Your task to perform on an android device: What's the weather like in Beijing? Image 0: 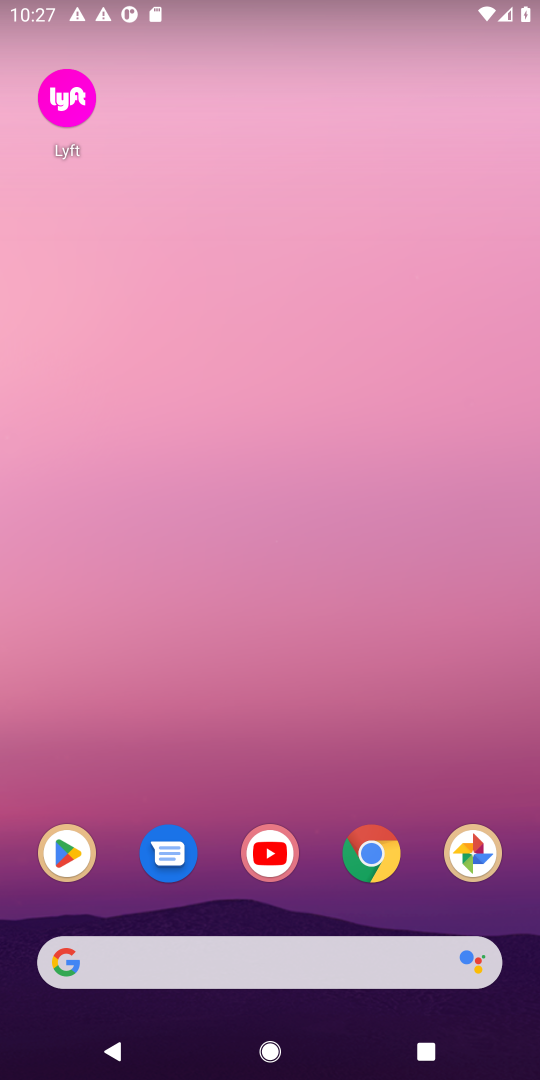
Step 0: click (167, 957)
Your task to perform on an android device: What's the weather like in Beijing? Image 1: 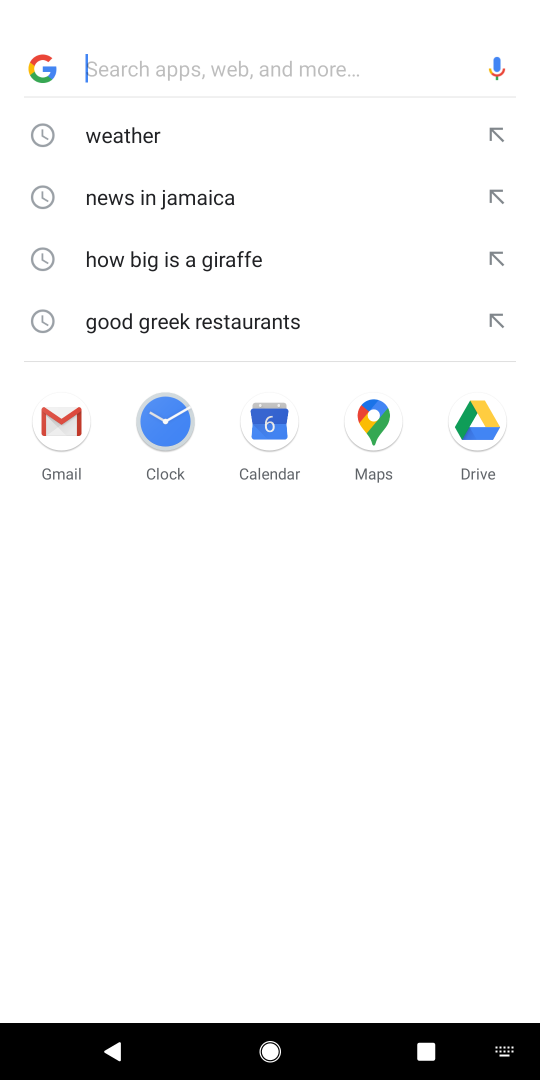
Step 1: type "weather in beijing"
Your task to perform on an android device: What's the weather like in Beijing? Image 2: 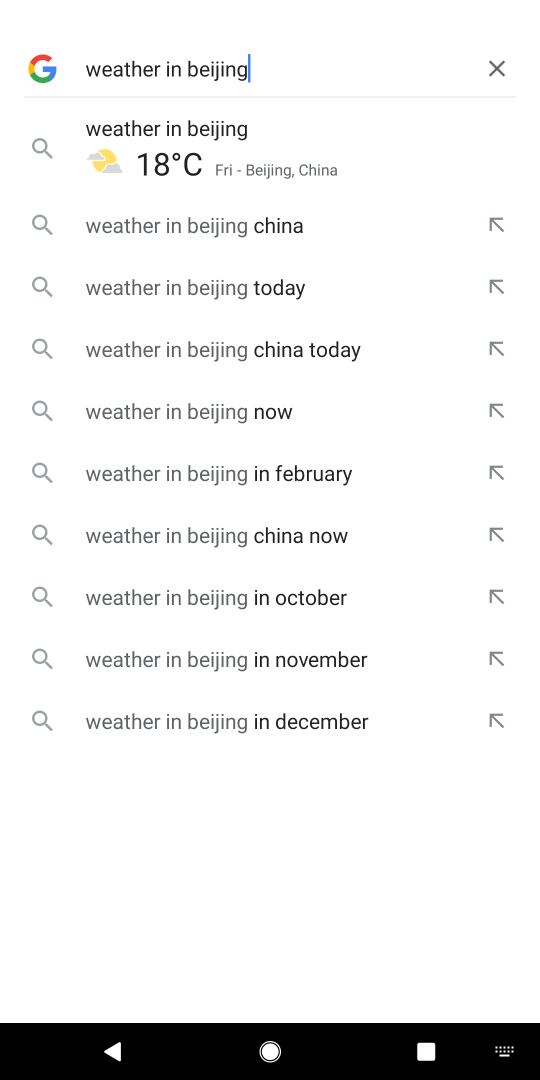
Step 2: click (201, 138)
Your task to perform on an android device: What's the weather like in Beijing? Image 3: 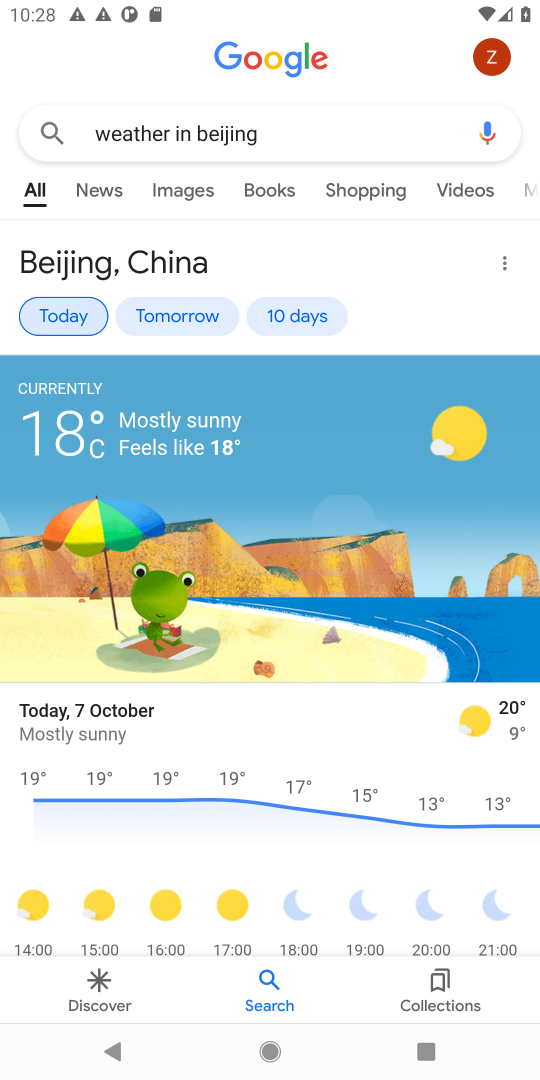
Step 3: drag from (304, 827) to (386, 195)
Your task to perform on an android device: What's the weather like in Beijing? Image 4: 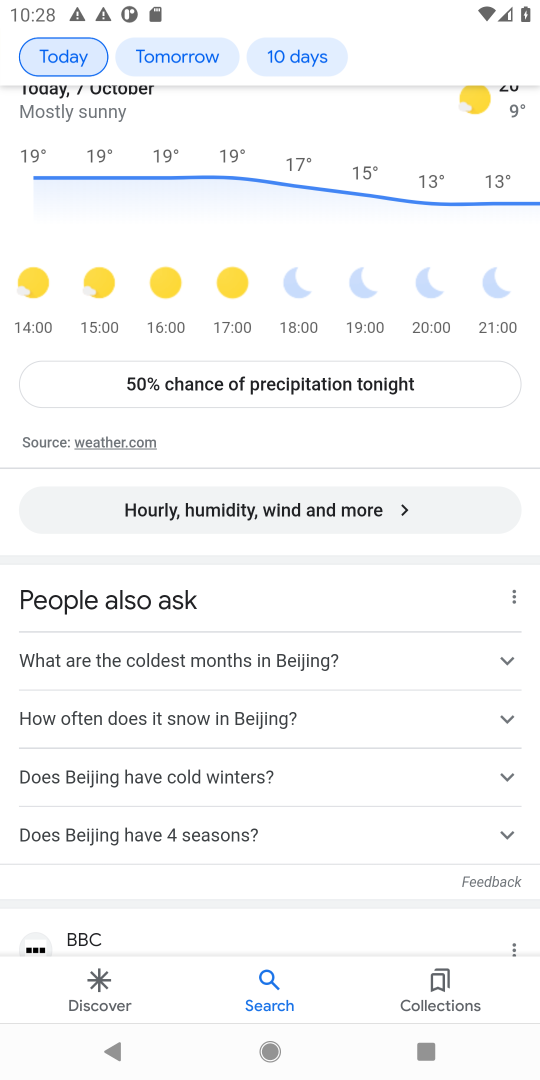
Step 4: drag from (372, 611) to (379, 205)
Your task to perform on an android device: What's the weather like in Beijing? Image 5: 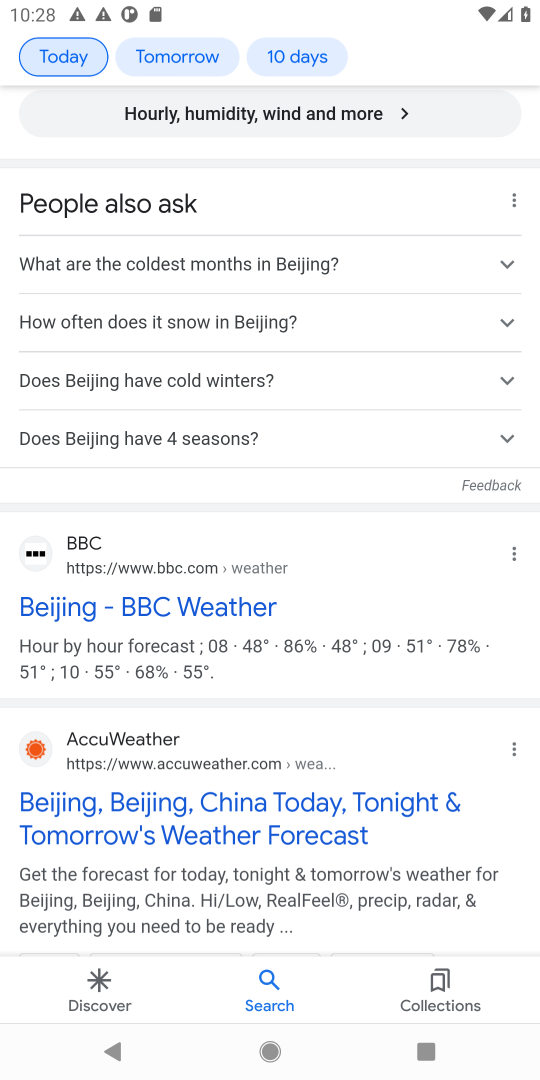
Step 5: drag from (362, 527) to (345, 248)
Your task to perform on an android device: What's the weather like in Beijing? Image 6: 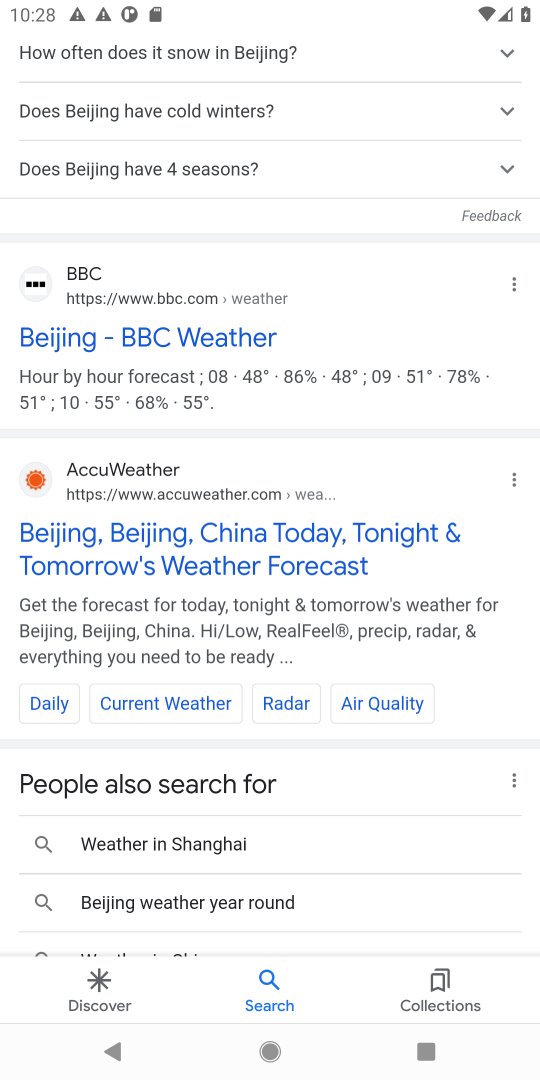
Step 6: drag from (300, 408) to (327, 199)
Your task to perform on an android device: What's the weather like in Beijing? Image 7: 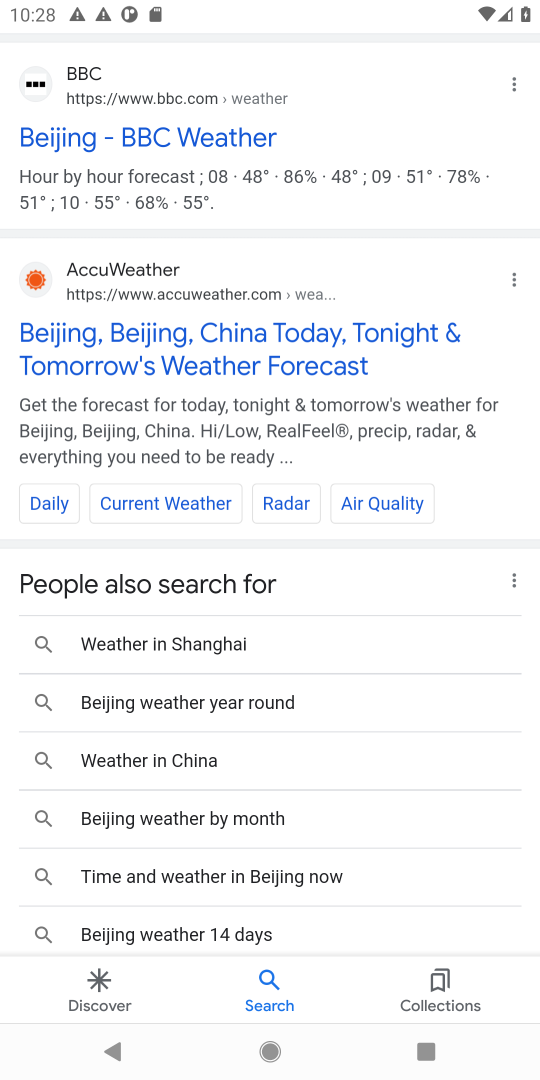
Step 7: drag from (326, 438) to (319, 211)
Your task to perform on an android device: What's the weather like in Beijing? Image 8: 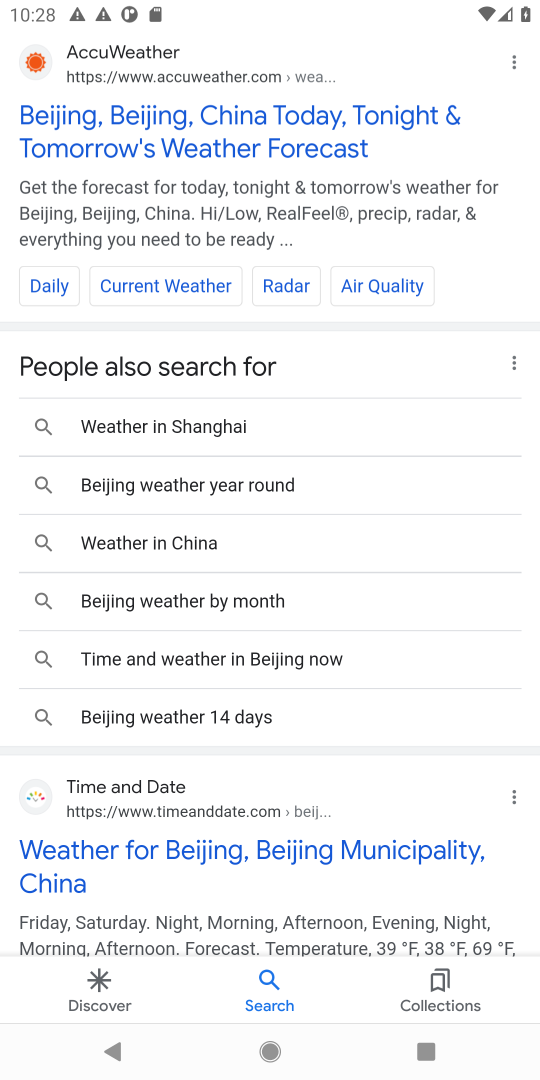
Step 8: drag from (353, 576) to (343, 195)
Your task to perform on an android device: What's the weather like in Beijing? Image 9: 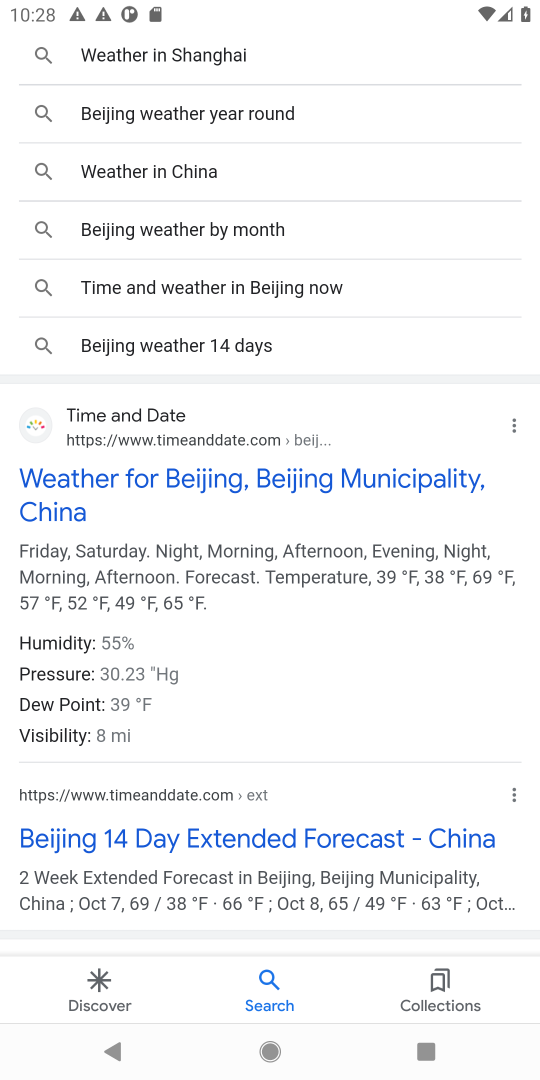
Step 9: drag from (379, 399) to (381, 182)
Your task to perform on an android device: What's the weather like in Beijing? Image 10: 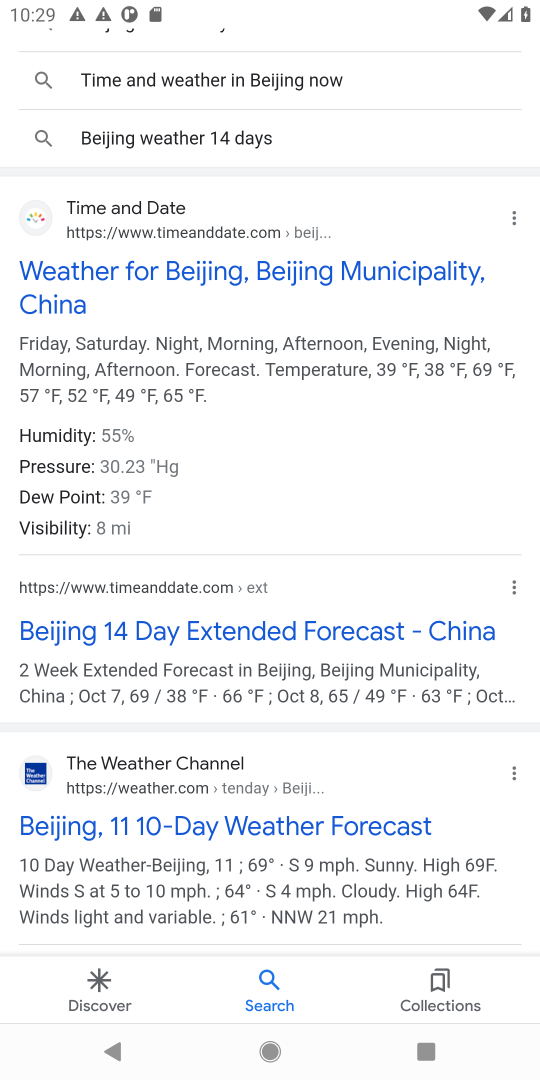
Step 10: drag from (332, 194) to (349, 136)
Your task to perform on an android device: What's the weather like in Beijing? Image 11: 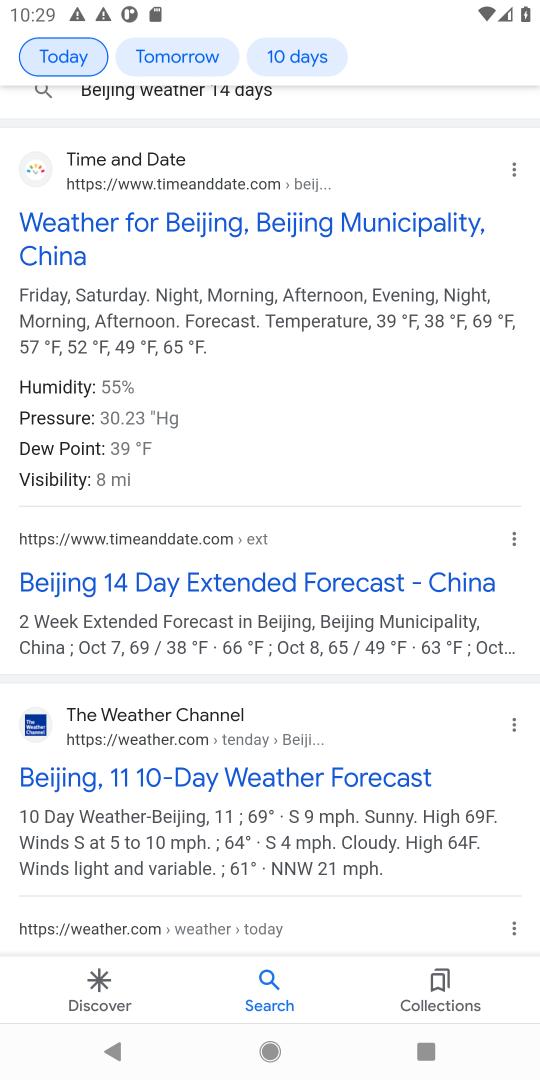
Step 11: drag from (341, 205) to (316, 921)
Your task to perform on an android device: What's the weather like in Beijing? Image 12: 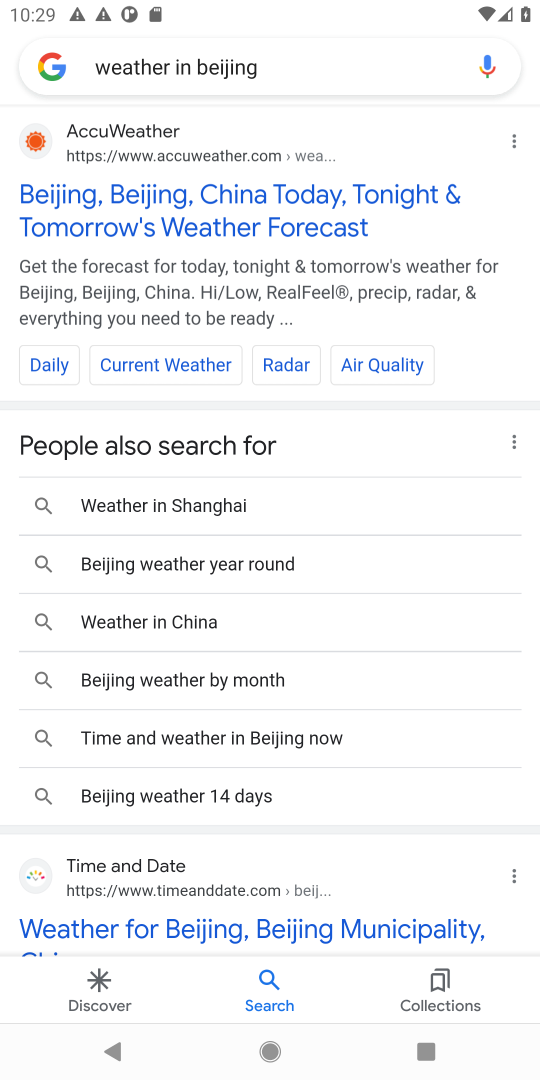
Step 12: click (216, 210)
Your task to perform on an android device: What's the weather like in Beijing? Image 13: 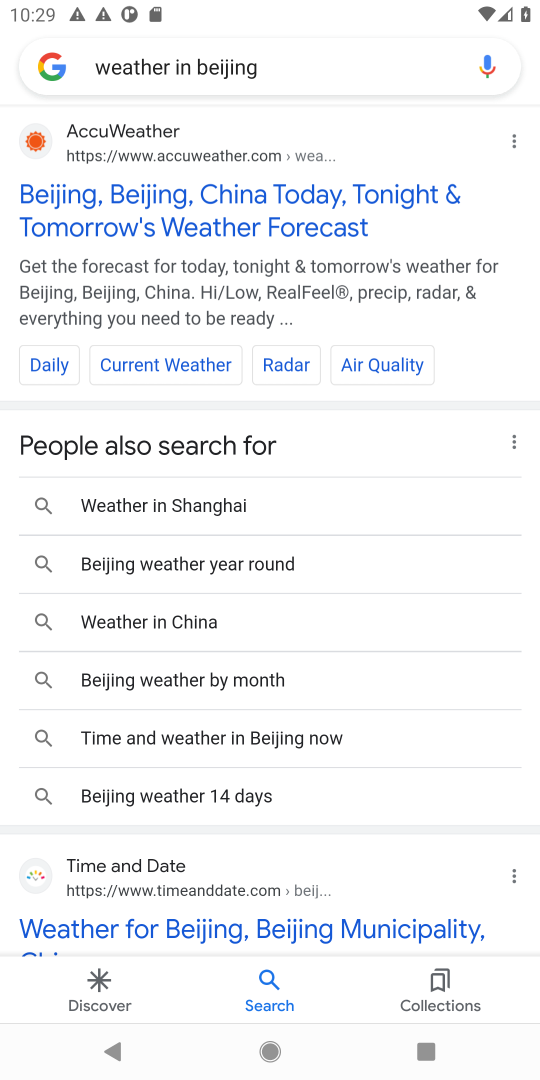
Step 13: click (216, 207)
Your task to perform on an android device: What's the weather like in Beijing? Image 14: 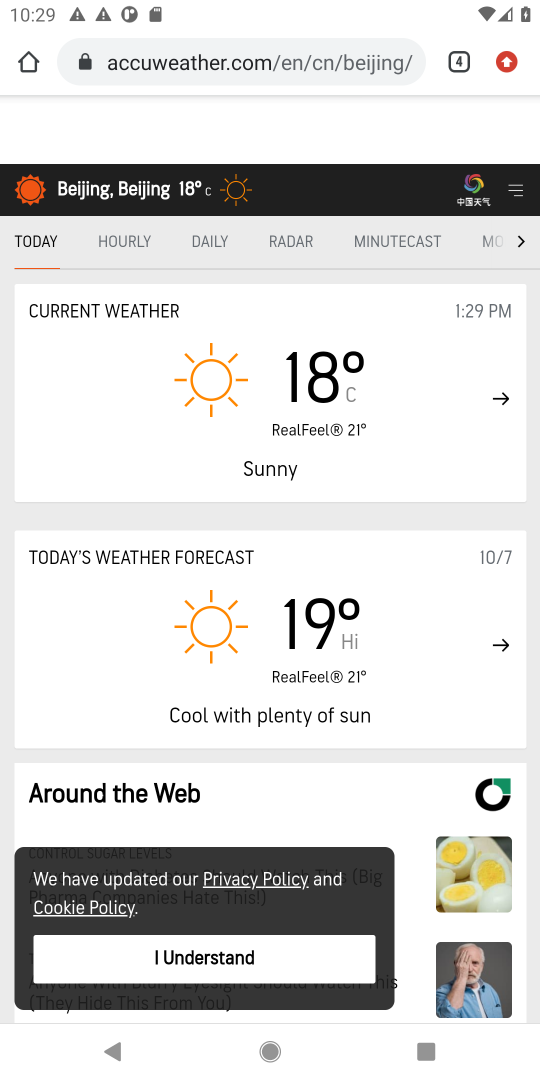
Step 14: task complete